Your task to perform on an android device: turn off notifications settings in the gmail app Image 0: 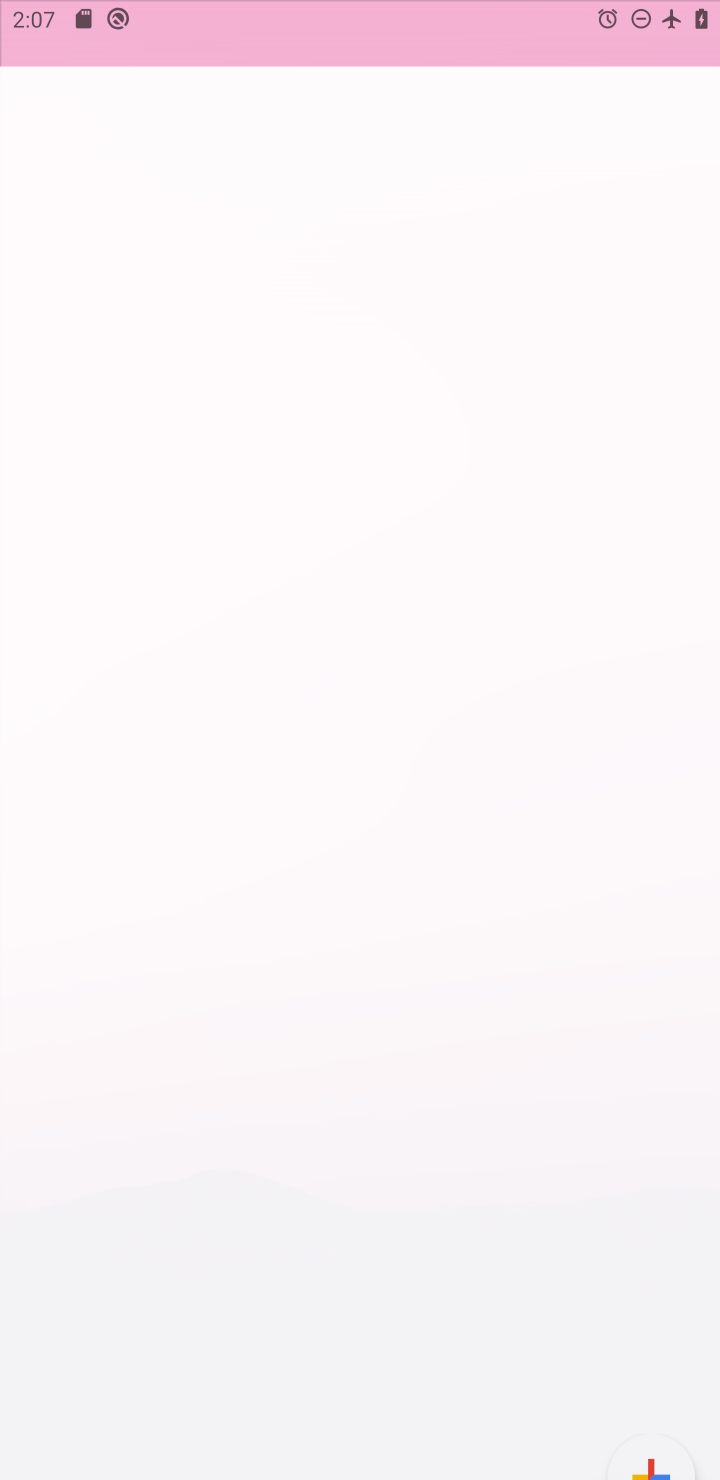
Step 0: press home button
Your task to perform on an android device: turn off notifications settings in the gmail app Image 1: 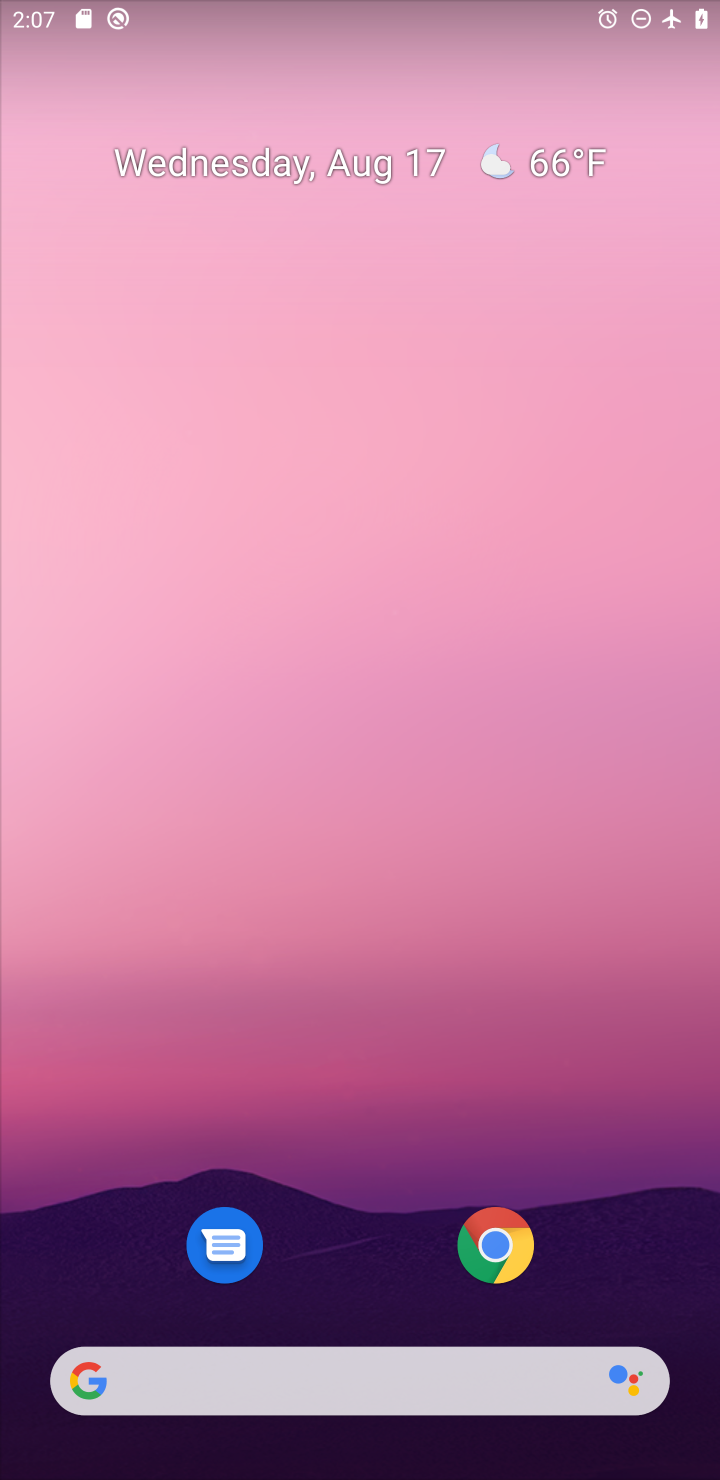
Step 1: drag from (339, 1314) to (195, 109)
Your task to perform on an android device: turn off notifications settings in the gmail app Image 2: 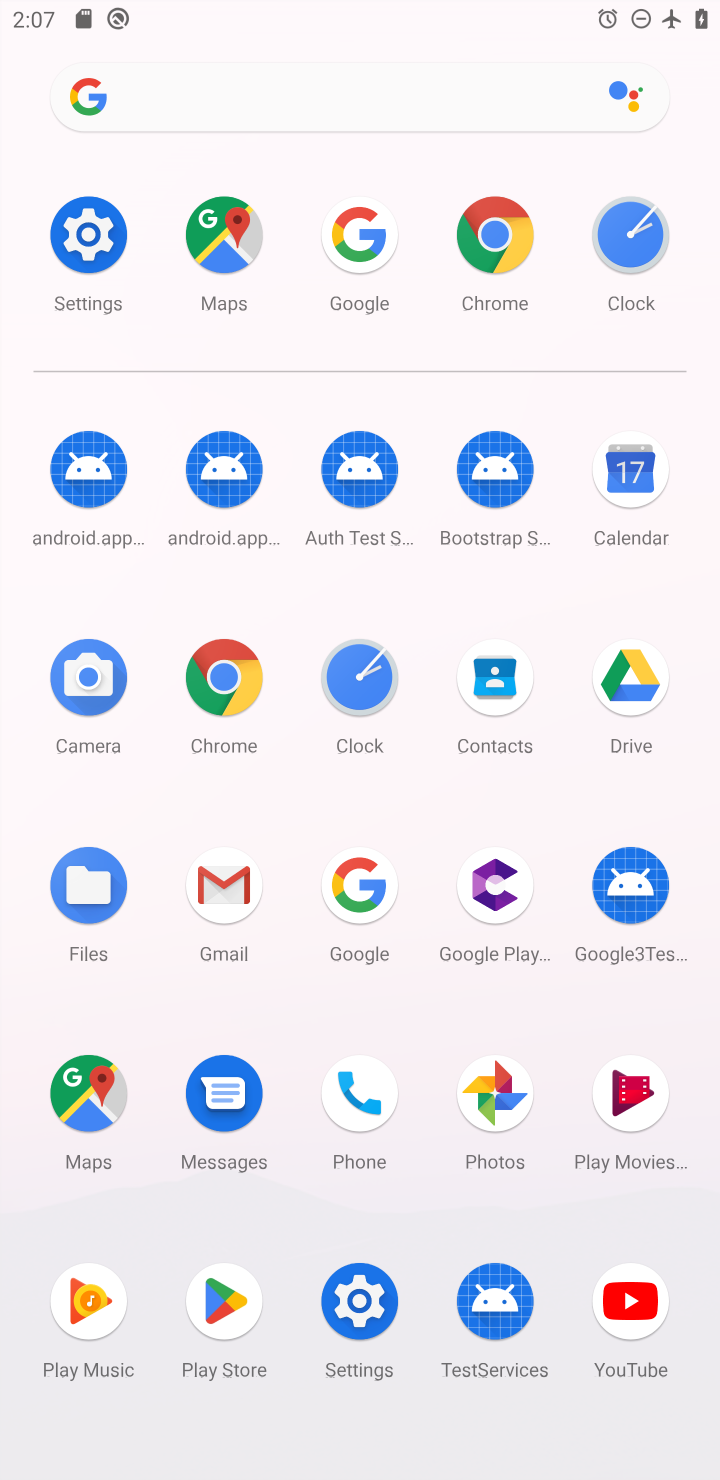
Step 2: click (225, 878)
Your task to perform on an android device: turn off notifications settings in the gmail app Image 3: 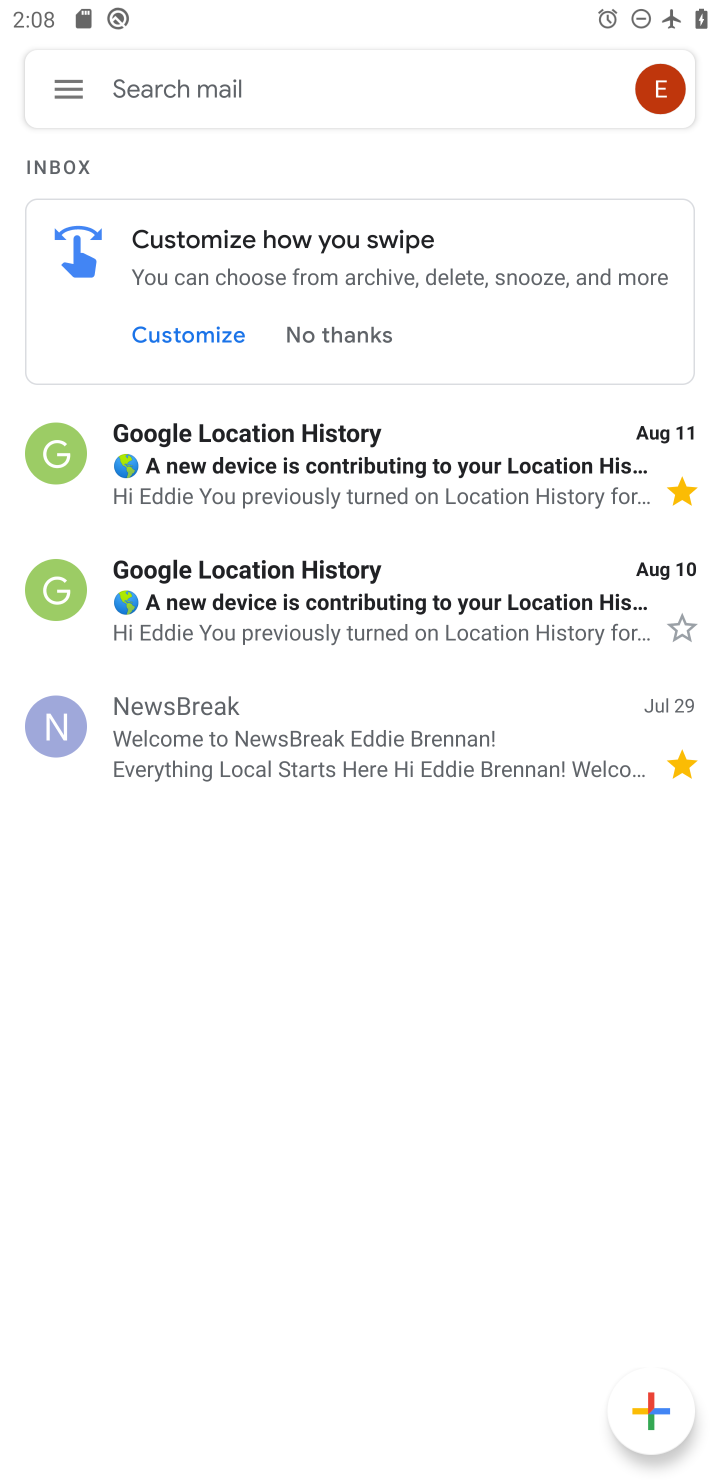
Step 3: click (65, 82)
Your task to perform on an android device: turn off notifications settings in the gmail app Image 4: 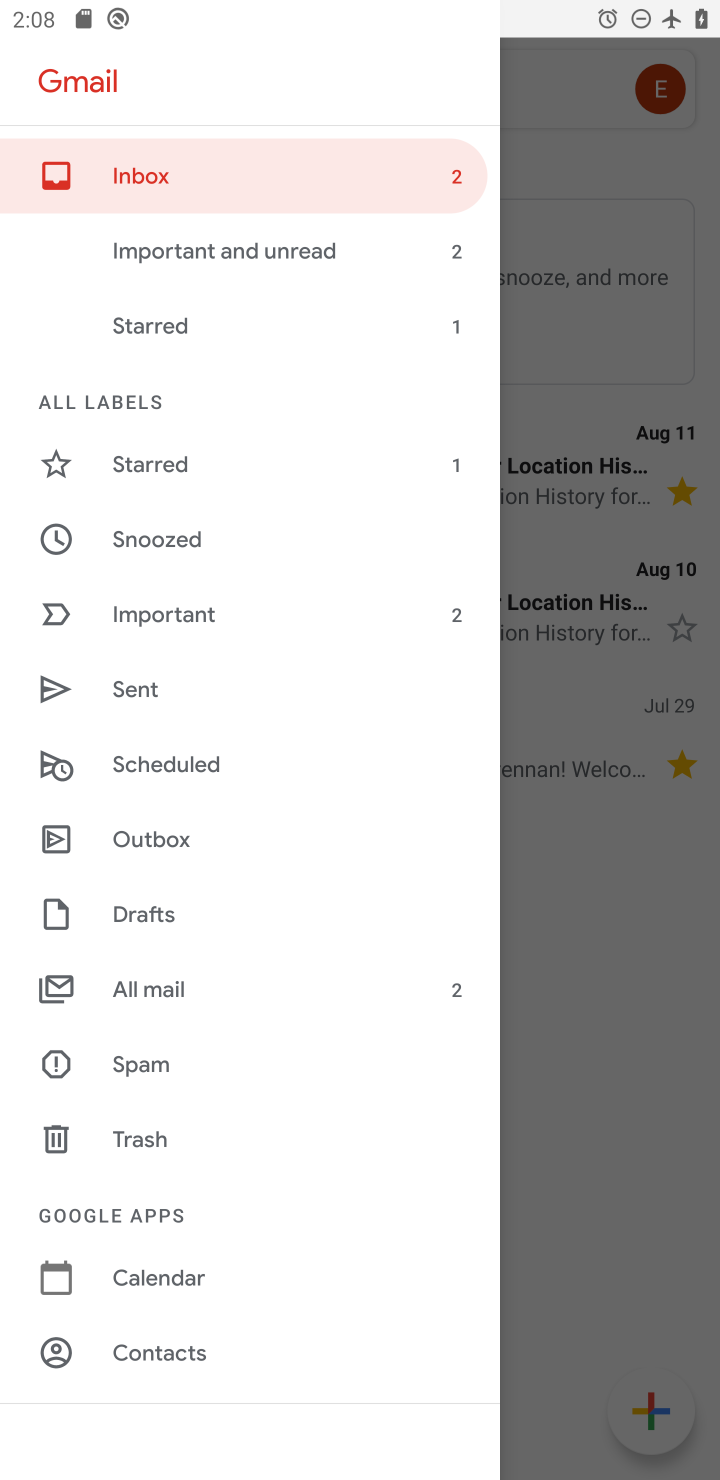
Step 4: drag from (173, 1301) to (164, 589)
Your task to perform on an android device: turn off notifications settings in the gmail app Image 5: 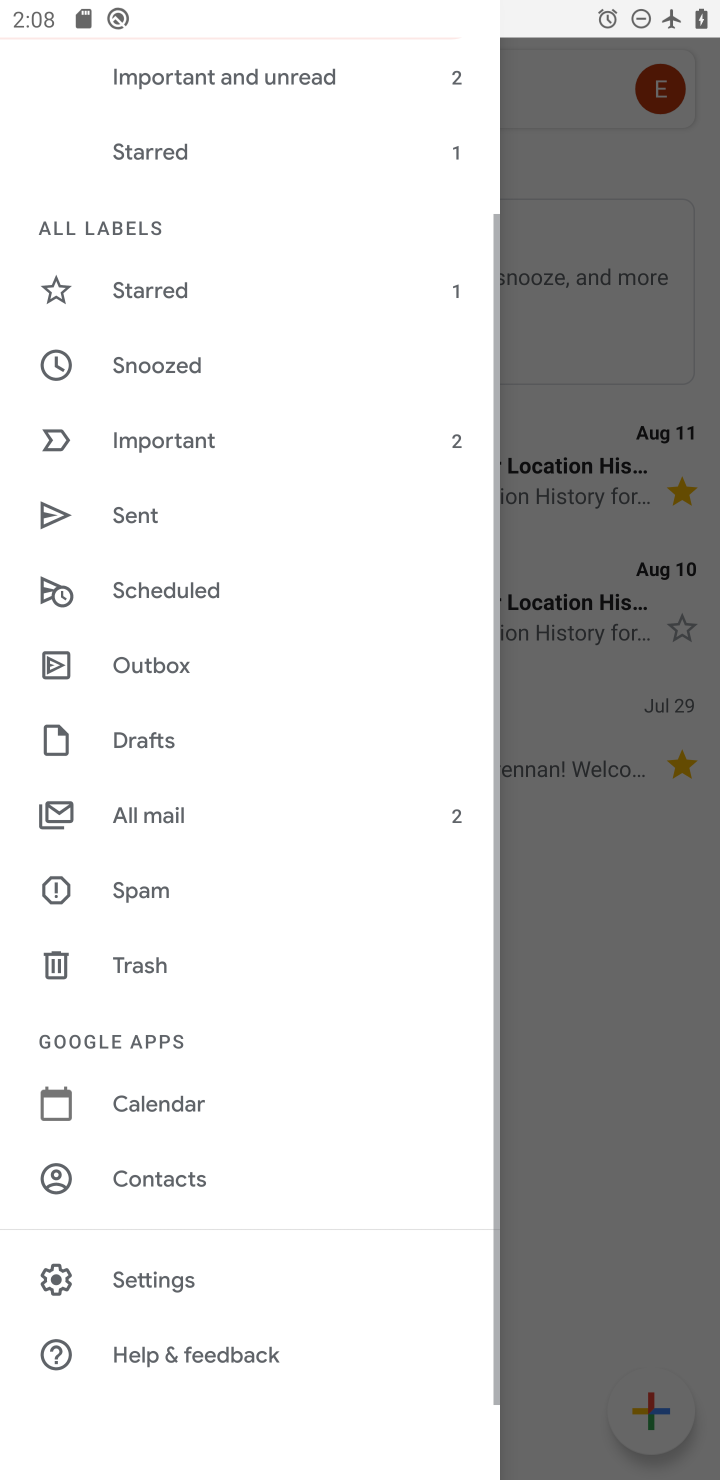
Step 5: click (184, 1284)
Your task to perform on an android device: turn off notifications settings in the gmail app Image 6: 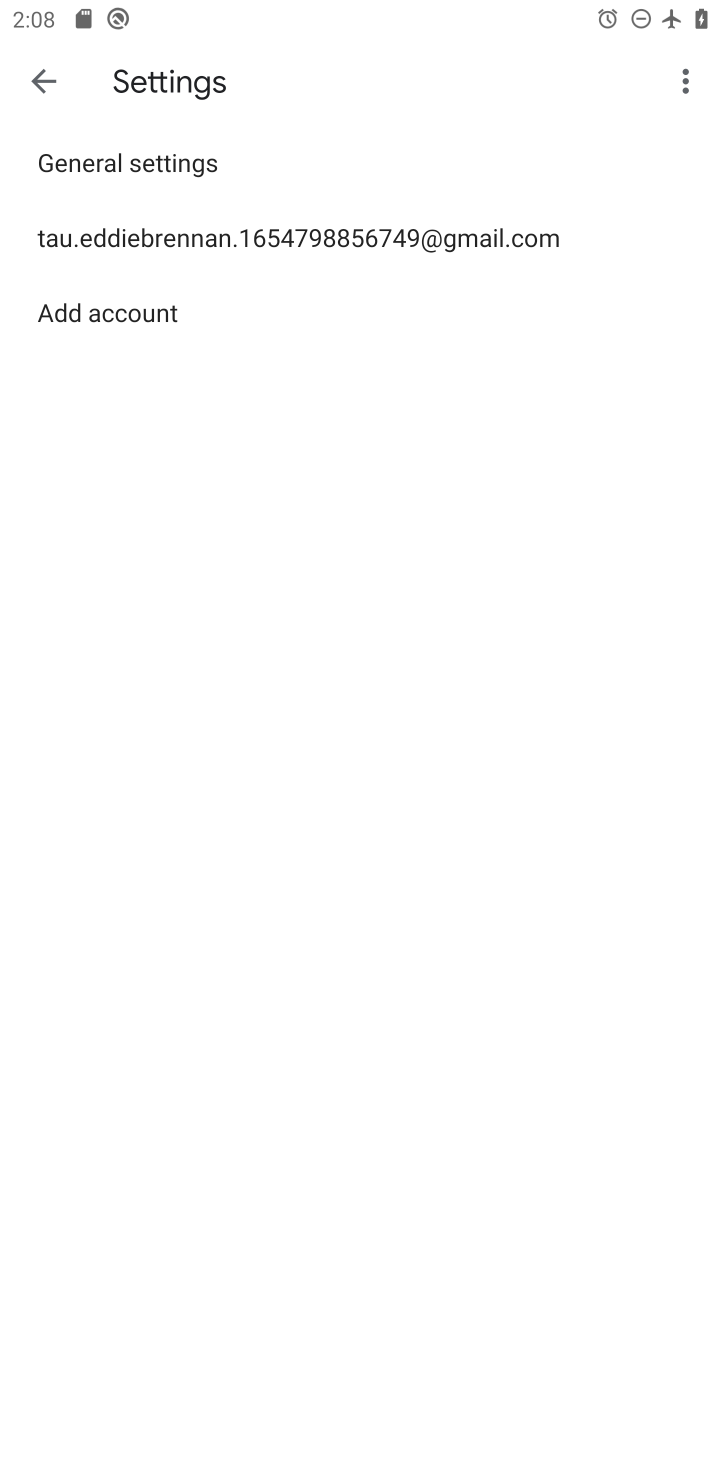
Step 6: click (452, 235)
Your task to perform on an android device: turn off notifications settings in the gmail app Image 7: 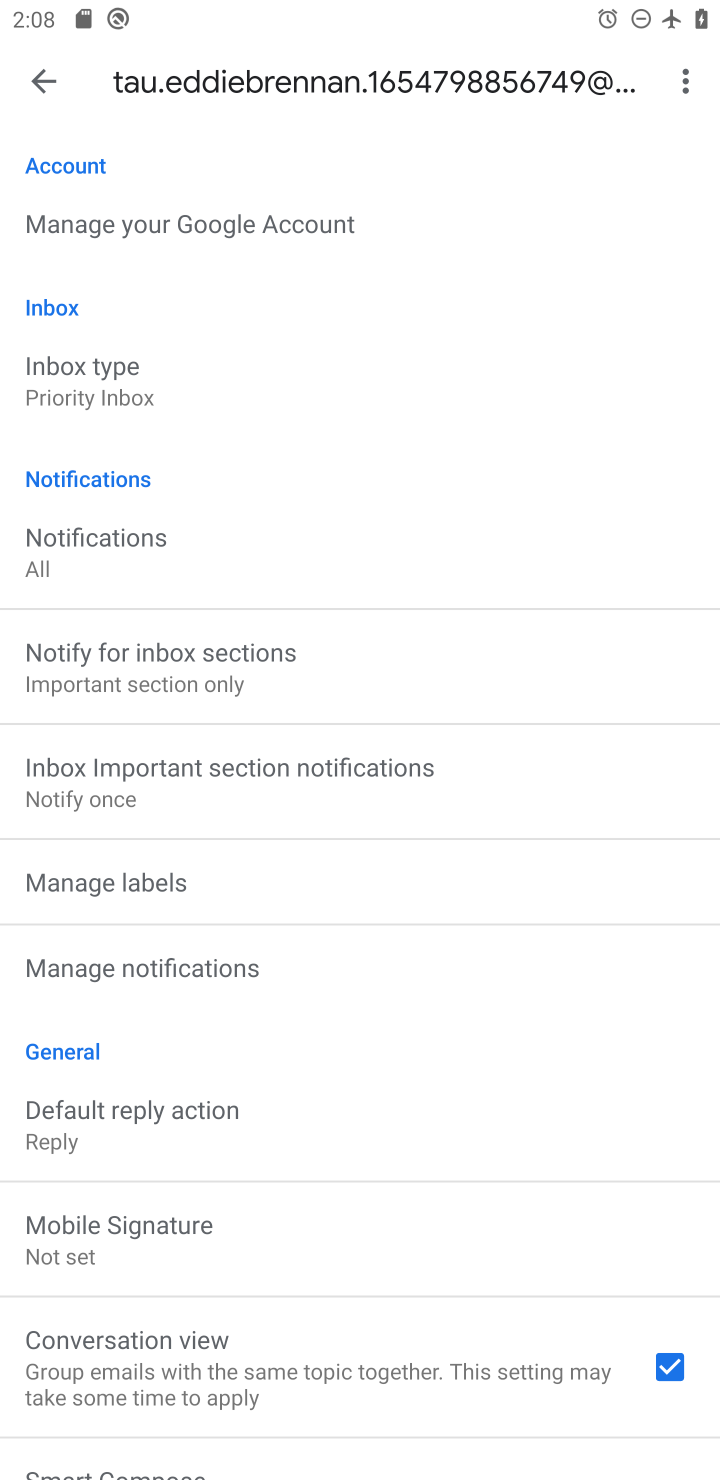
Step 7: drag from (317, 1330) to (277, 151)
Your task to perform on an android device: turn off notifications settings in the gmail app Image 8: 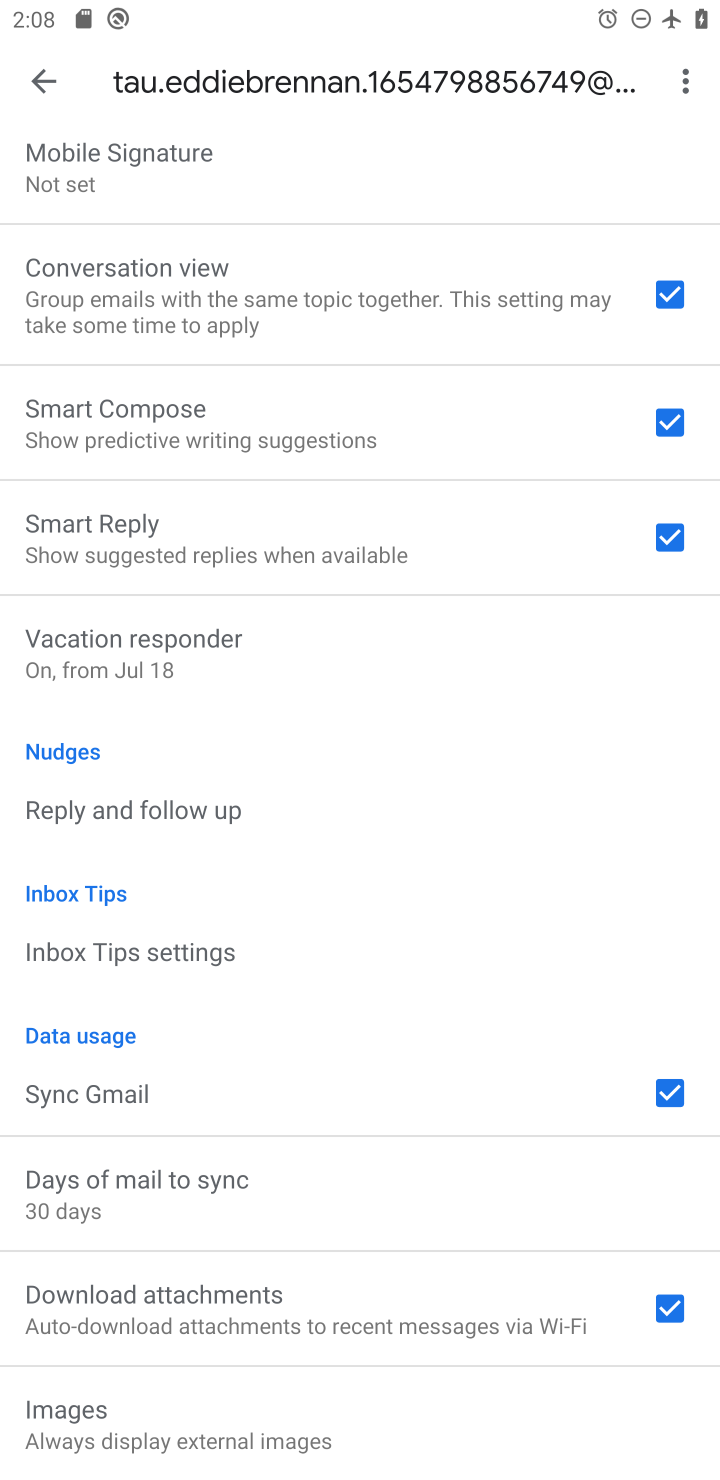
Step 8: drag from (245, 1375) to (214, 736)
Your task to perform on an android device: turn off notifications settings in the gmail app Image 9: 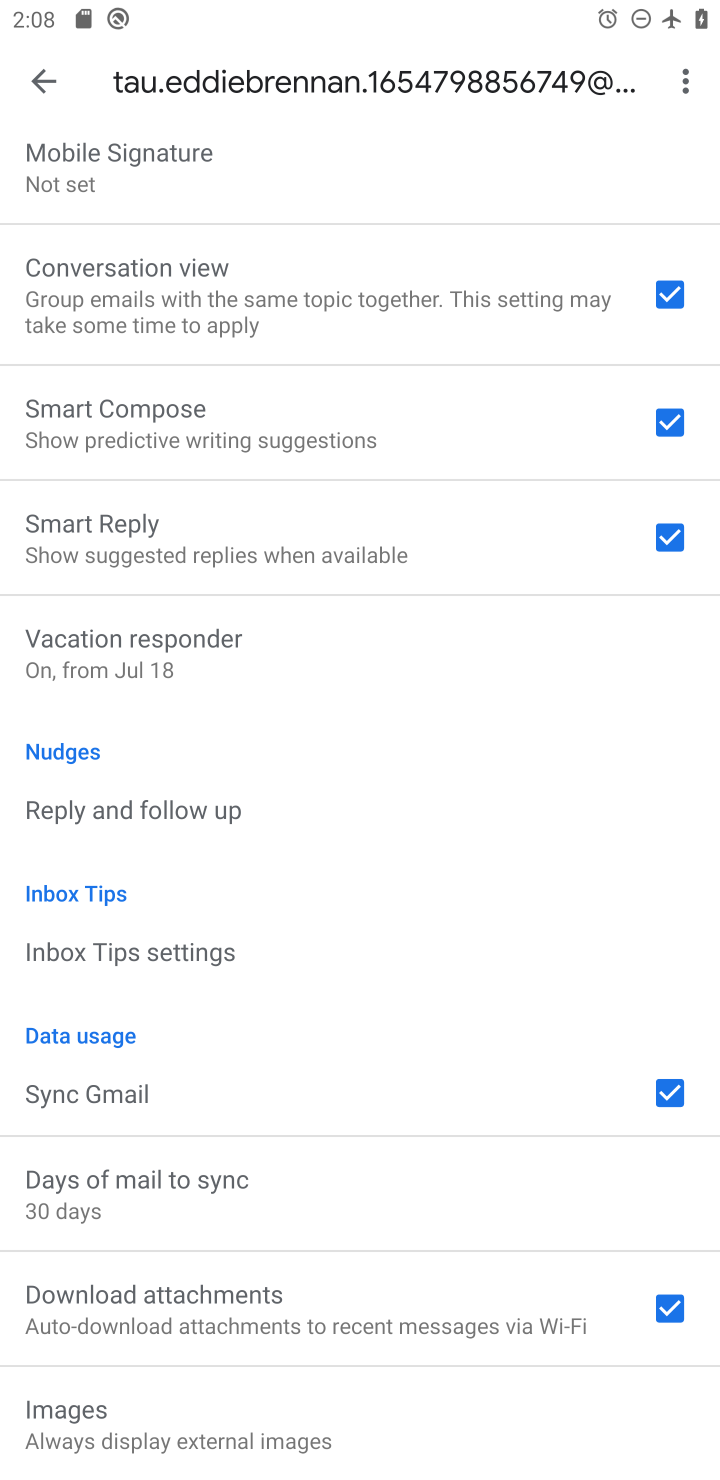
Step 9: click (664, 528)
Your task to perform on an android device: turn off notifications settings in the gmail app Image 10: 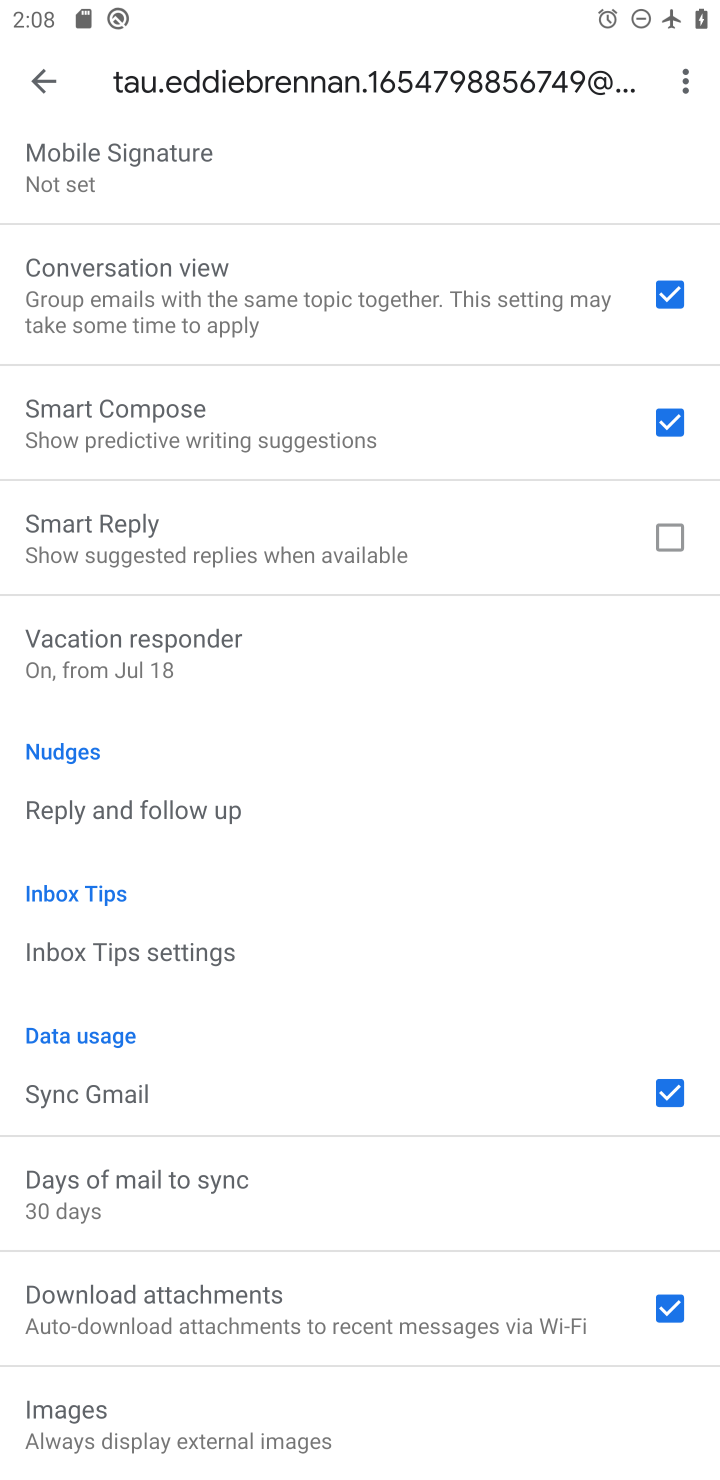
Step 10: task complete